Your task to perform on an android device: turn on priority inbox in the gmail app Image 0: 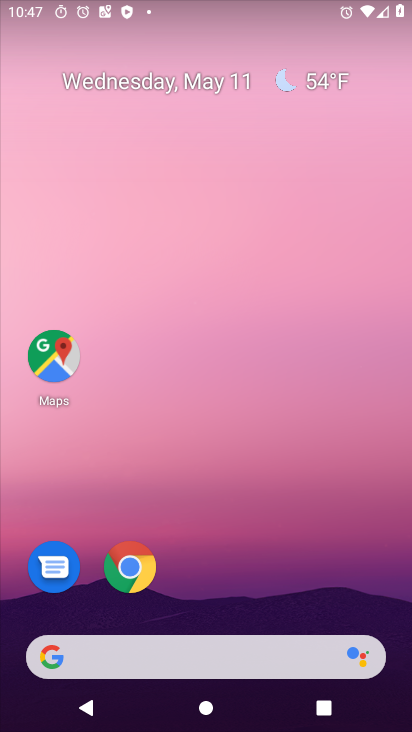
Step 0: drag from (213, 586) to (312, 2)
Your task to perform on an android device: turn on priority inbox in the gmail app Image 1: 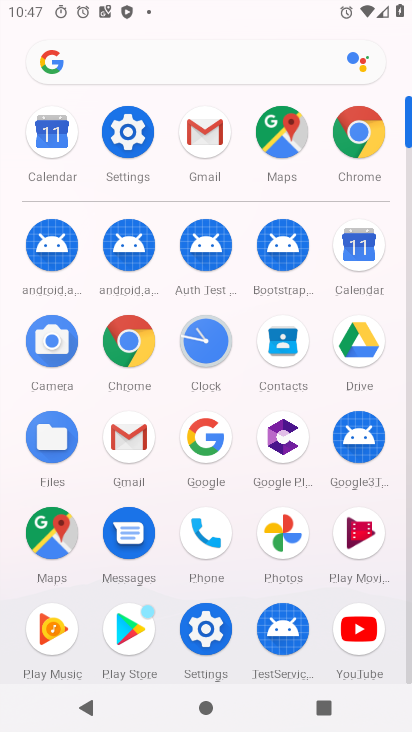
Step 1: click (130, 441)
Your task to perform on an android device: turn on priority inbox in the gmail app Image 2: 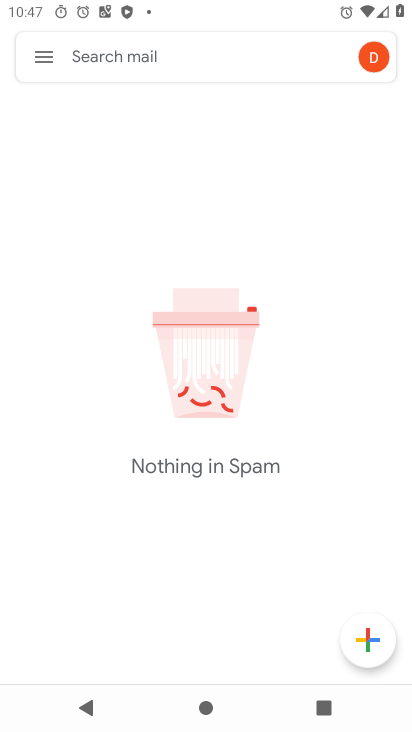
Step 2: click (50, 47)
Your task to perform on an android device: turn on priority inbox in the gmail app Image 3: 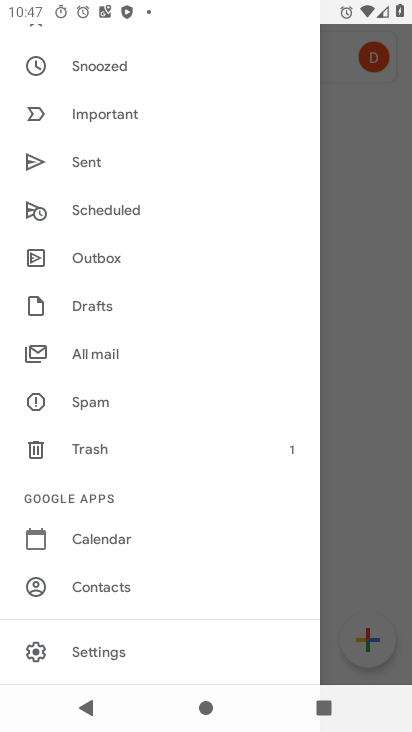
Step 3: drag from (109, 598) to (135, 331)
Your task to perform on an android device: turn on priority inbox in the gmail app Image 4: 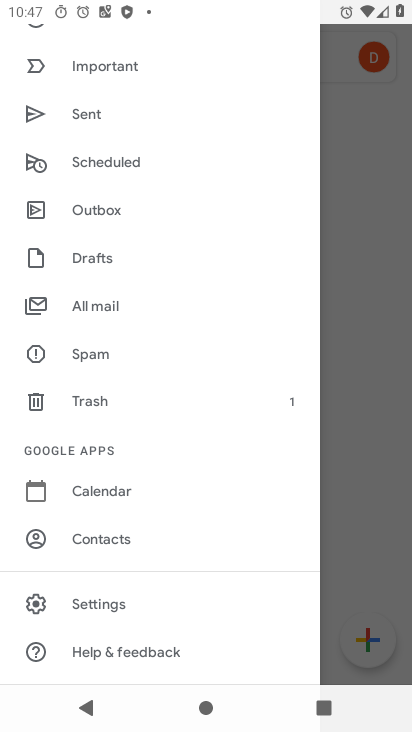
Step 4: click (93, 611)
Your task to perform on an android device: turn on priority inbox in the gmail app Image 5: 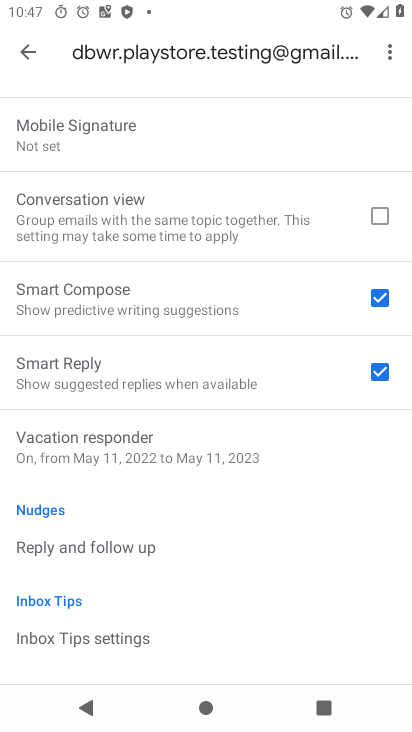
Step 5: drag from (118, 159) to (115, 731)
Your task to perform on an android device: turn on priority inbox in the gmail app Image 6: 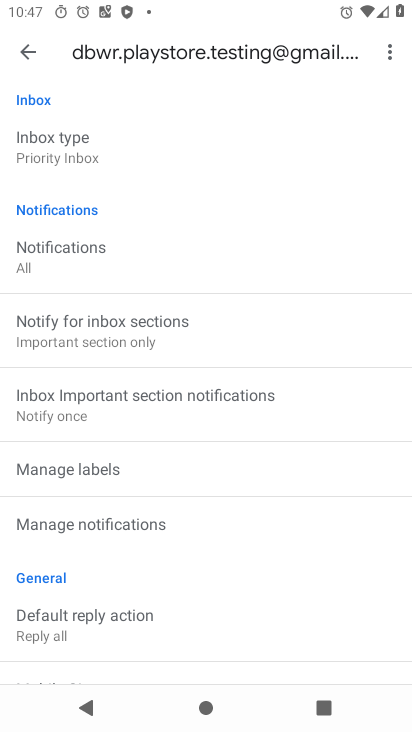
Step 6: drag from (129, 263) to (136, 608)
Your task to perform on an android device: turn on priority inbox in the gmail app Image 7: 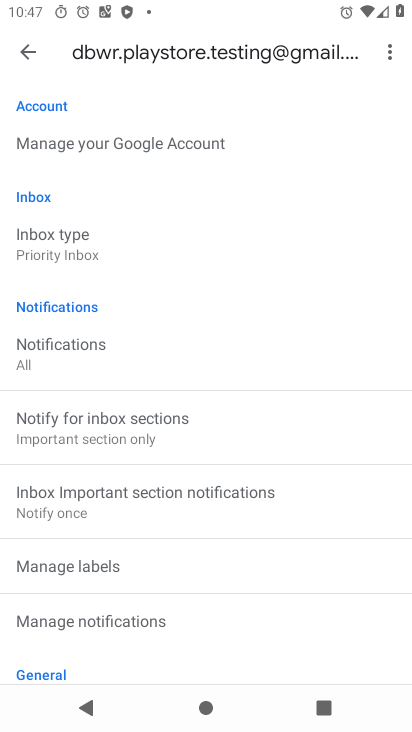
Step 7: click (79, 237)
Your task to perform on an android device: turn on priority inbox in the gmail app Image 8: 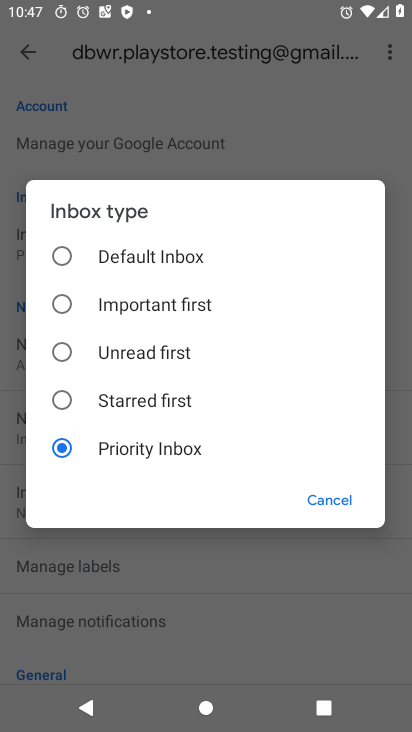
Step 8: task complete